Your task to perform on an android device: turn off picture-in-picture Image 0: 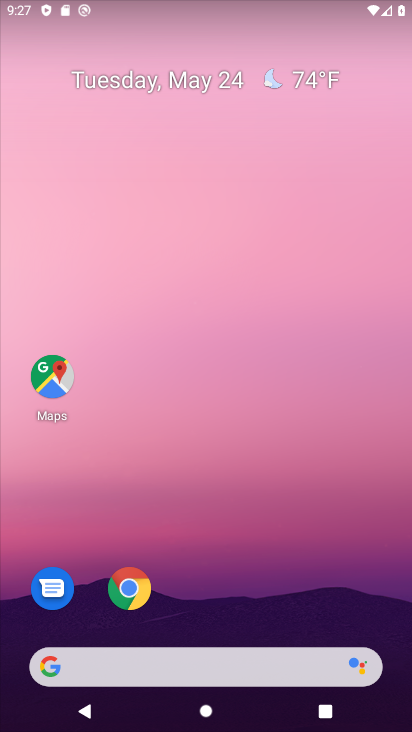
Step 0: click (131, 592)
Your task to perform on an android device: turn off picture-in-picture Image 1: 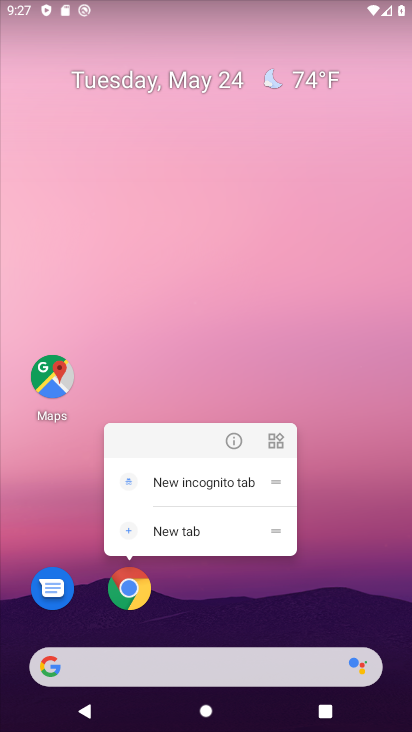
Step 1: click (239, 434)
Your task to perform on an android device: turn off picture-in-picture Image 2: 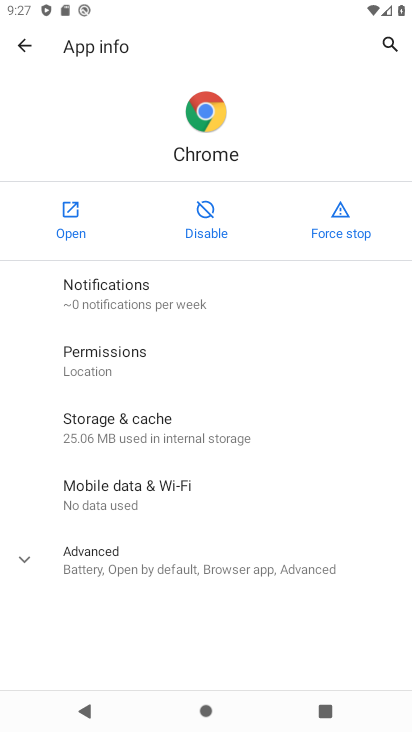
Step 2: click (151, 570)
Your task to perform on an android device: turn off picture-in-picture Image 3: 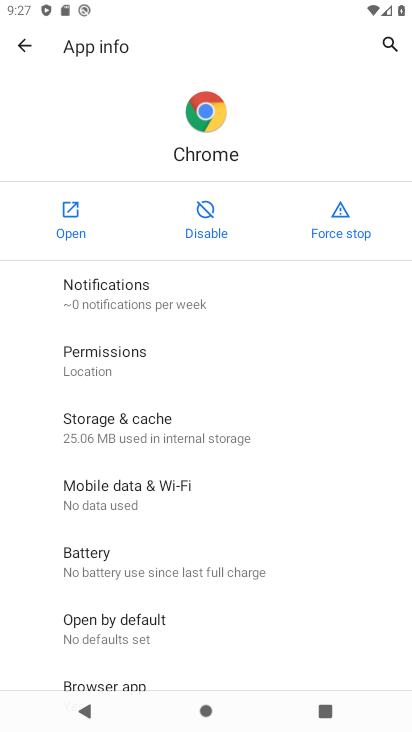
Step 3: drag from (204, 658) to (255, 55)
Your task to perform on an android device: turn off picture-in-picture Image 4: 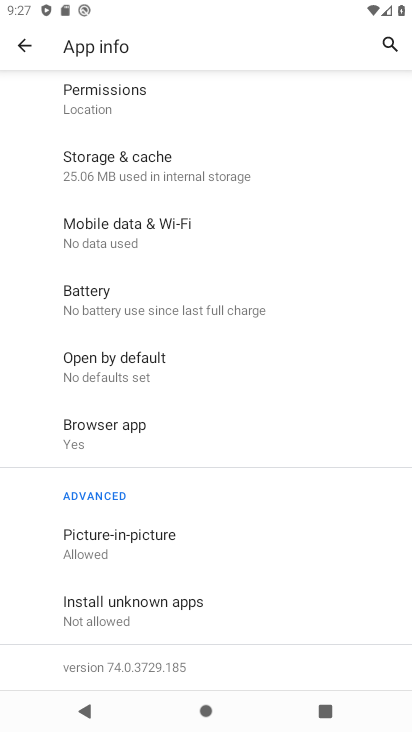
Step 4: click (74, 542)
Your task to perform on an android device: turn off picture-in-picture Image 5: 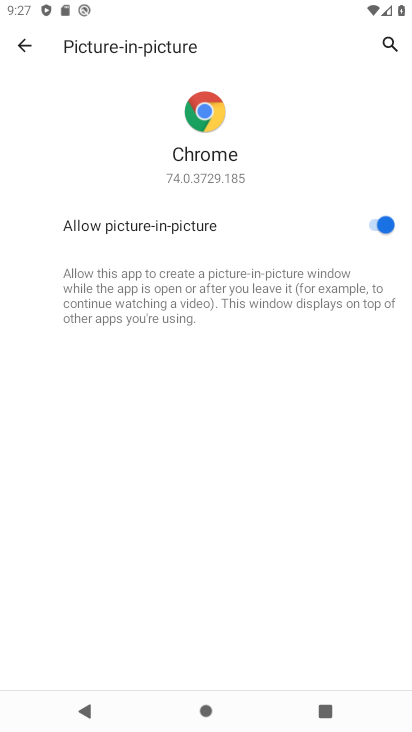
Step 5: click (377, 233)
Your task to perform on an android device: turn off picture-in-picture Image 6: 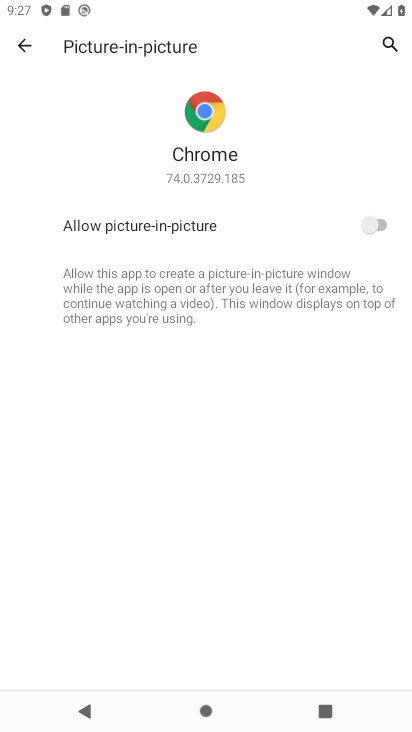
Step 6: task complete